Your task to perform on an android device: create a new album in the google photos Image 0: 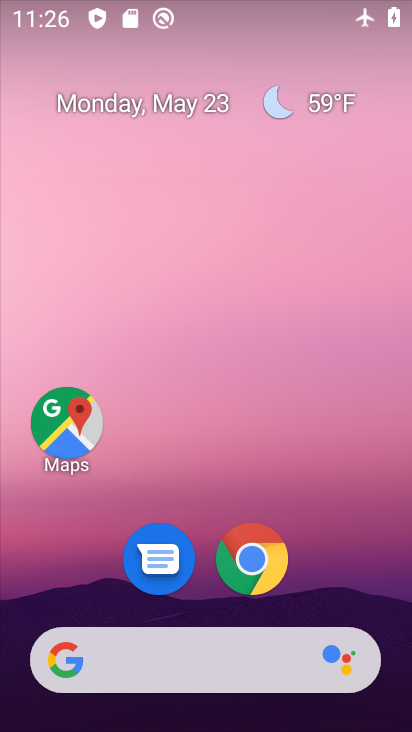
Step 0: drag from (394, 657) to (283, 17)
Your task to perform on an android device: create a new album in the google photos Image 1: 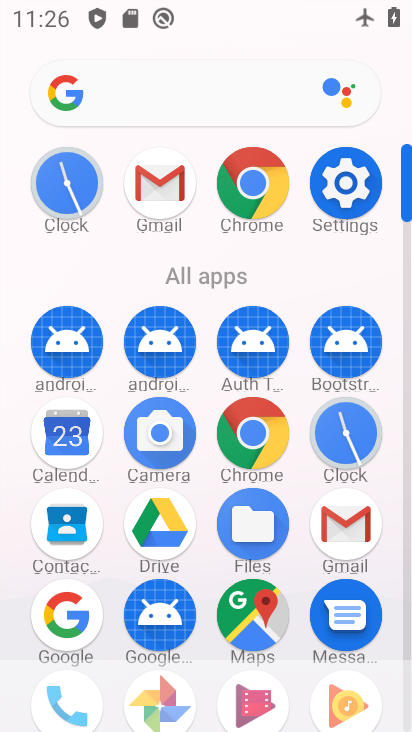
Step 1: drag from (168, 659) to (161, 159)
Your task to perform on an android device: create a new album in the google photos Image 2: 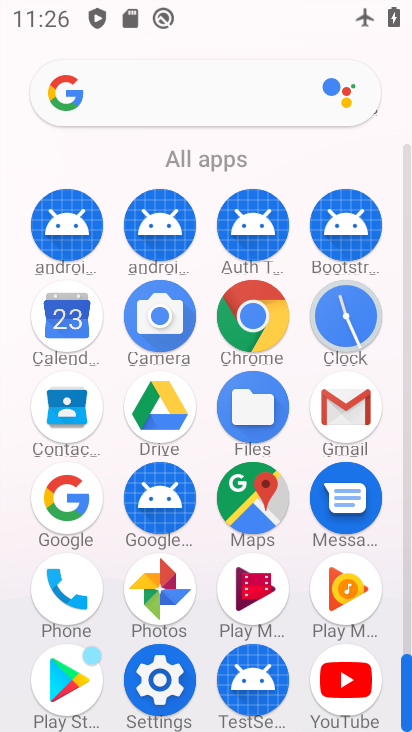
Step 2: click (144, 579)
Your task to perform on an android device: create a new album in the google photos Image 3: 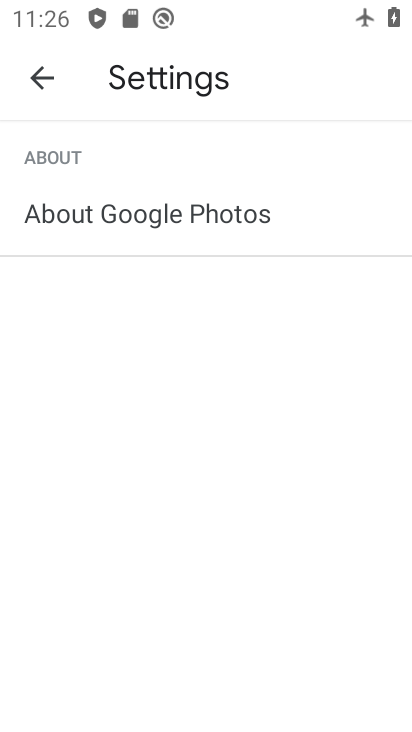
Step 3: press back button
Your task to perform on an android device: create a new album in the google photos Image 4: 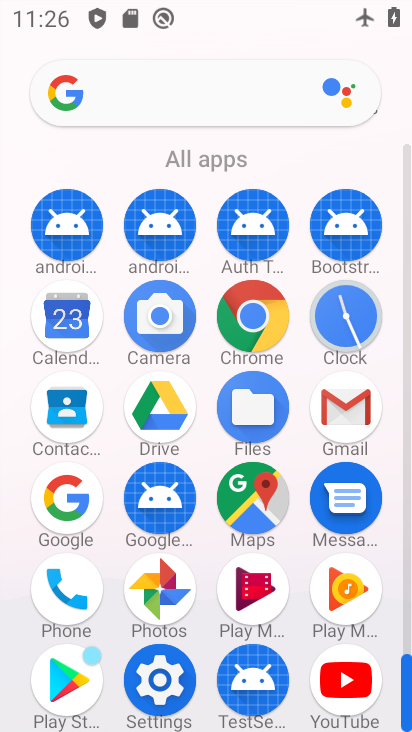
Step 4: click (156, 586)
Your task to perform on an android device: create a new album in the google photos Image 5: 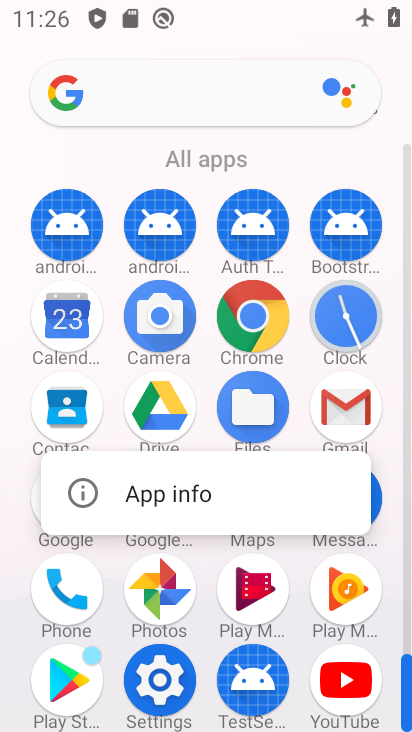
Step 5: click (156, 586)
Your task to perform on an android device: create a new album in the google photos Image 6: 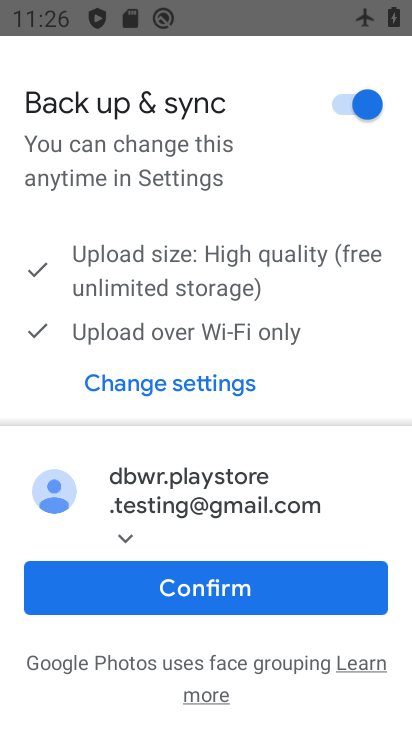
Step 6: click (216, 570)
Your task to perform on an android device: create a new album in the google photos Image 7: 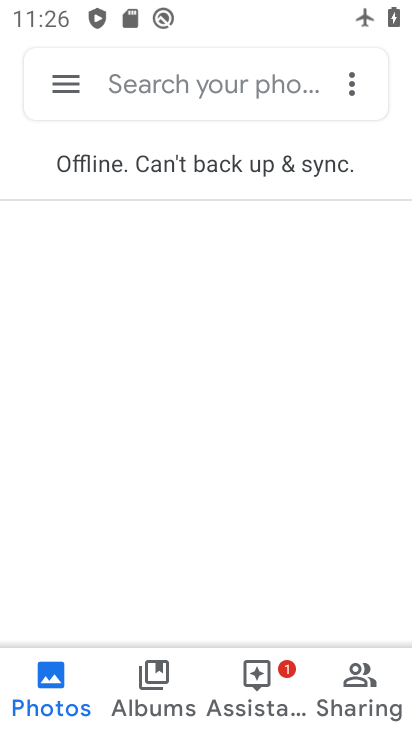
Step 7: task complete